Your task to perform on an android device: see sites visited before in the chrome app Image 0: 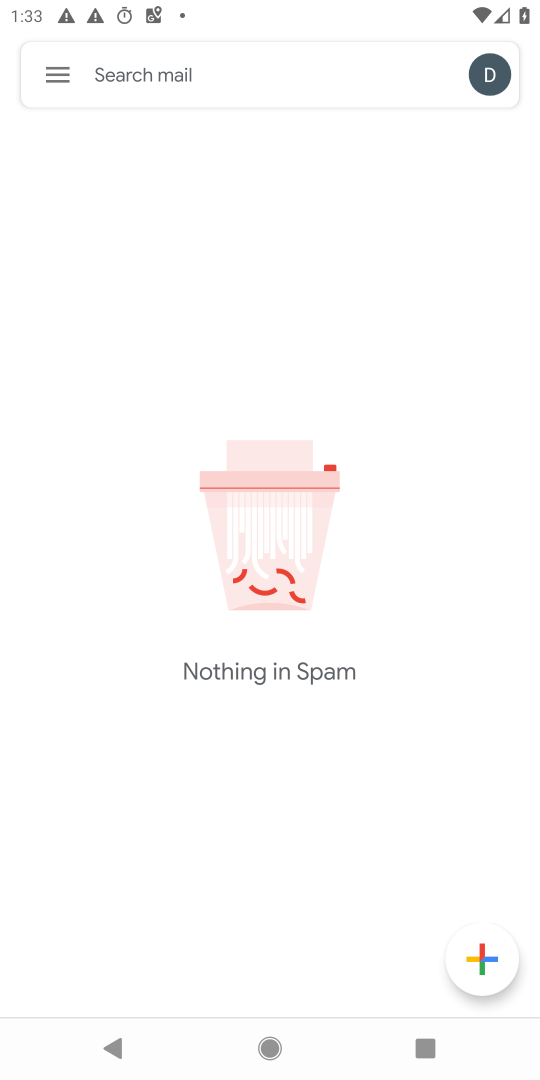
Step 0: press home button
Your task to perform on an android device: see sites visited before in the chrome app Image 1: 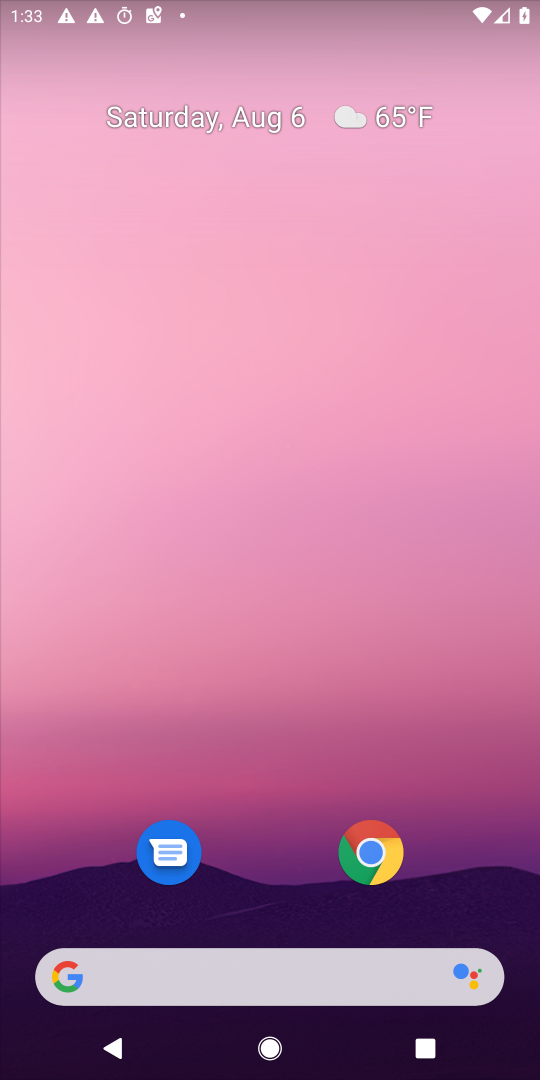
Step 1: drag from (351, 1000) to (462, 396)
Your task to perform on an android device: see sites visited before in the chrome app Image 2: 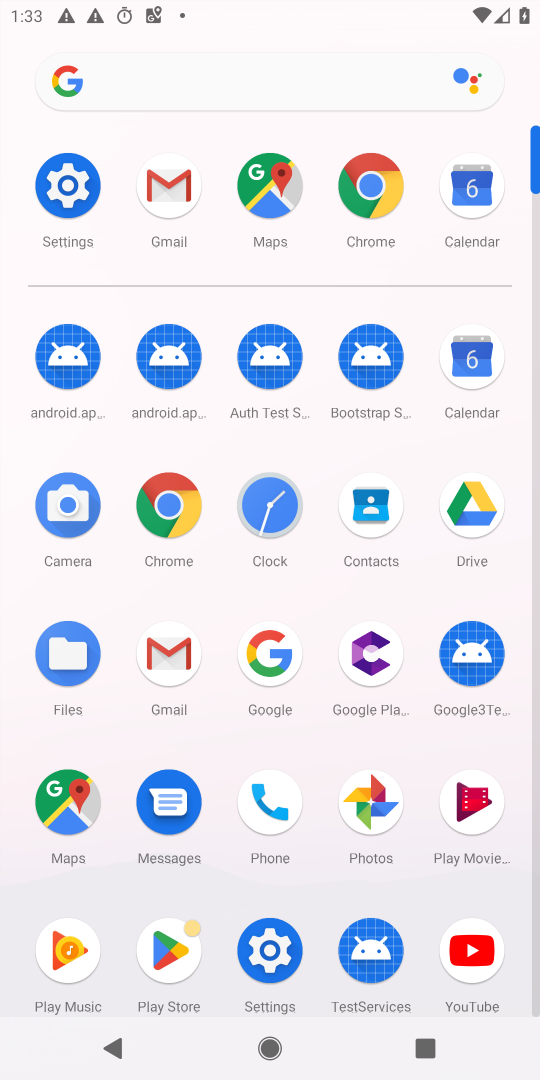
Step 2: click (376, 203)
Your task to perform on an android device: see sites visited before in the chrome app Image 3: 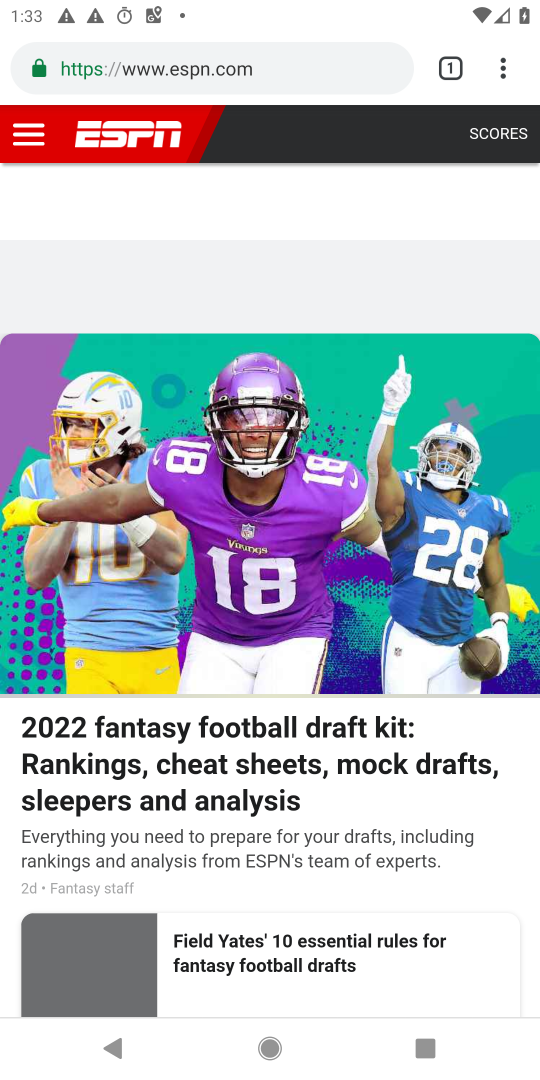
Step 3: click (502, 83)
Your task to perform on an android device: see sites visited before in the chrome app Image 4: 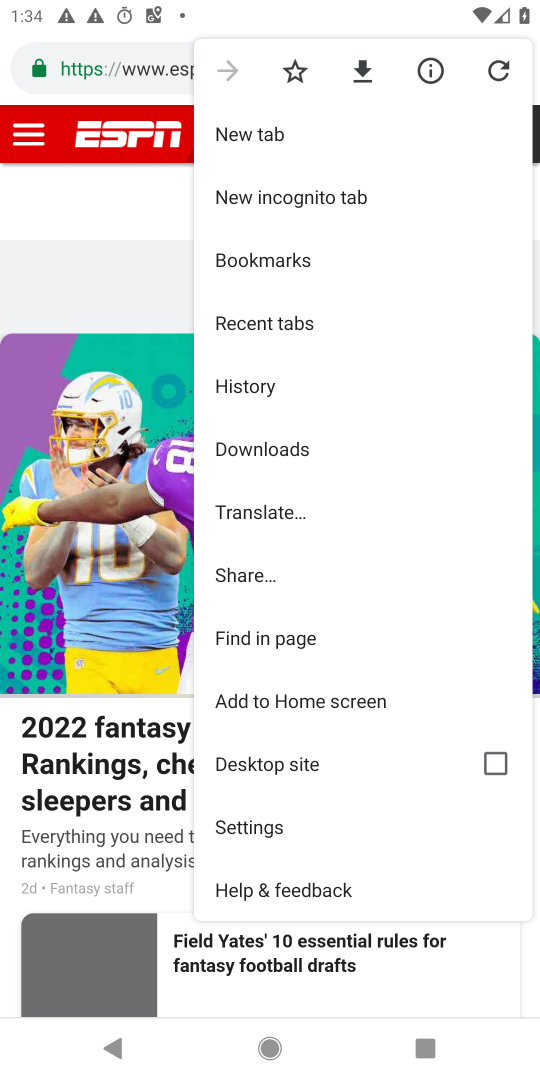
Step 4: click (256, 822)
Your task to perform on an android device: see sites visited before in the chrome app Image 5: 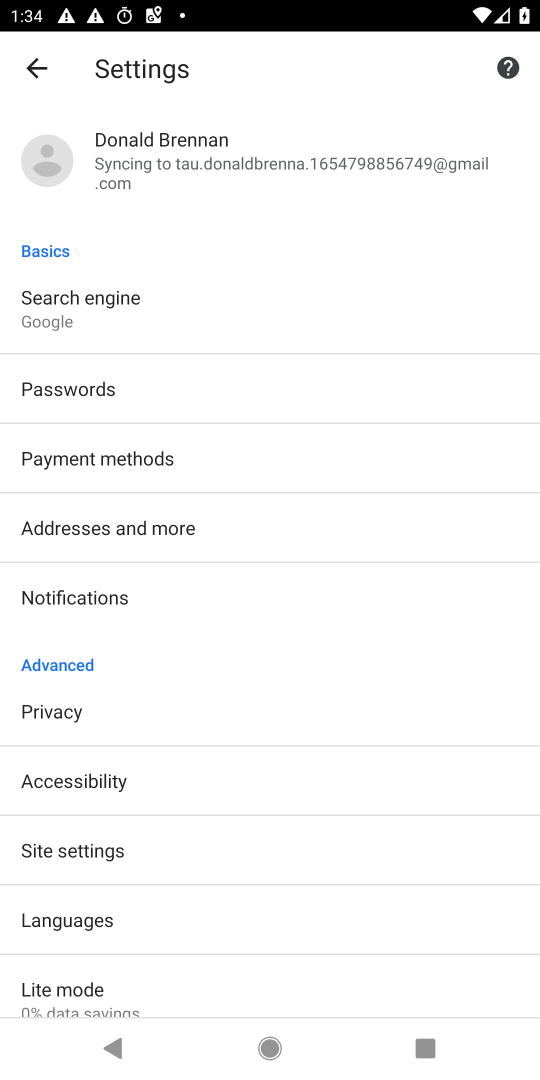
Step 5: click (109, 847)
Your task to perform on an android device: see sites visited before in the chrome app Image 6: 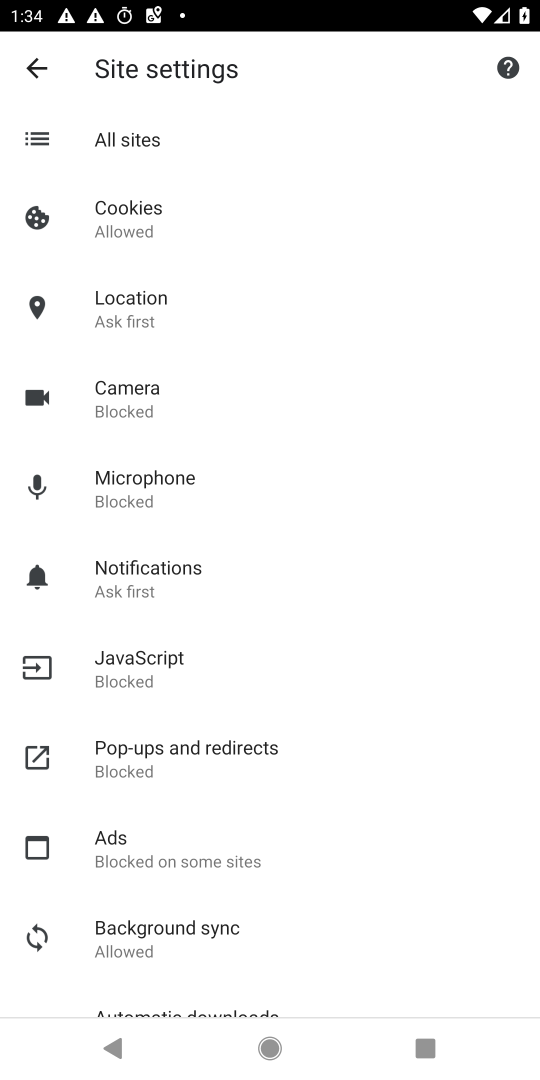
Step 6: click (201, 146)
Your task to perform on an android device: see sites visited before in the chrome app Image 7: 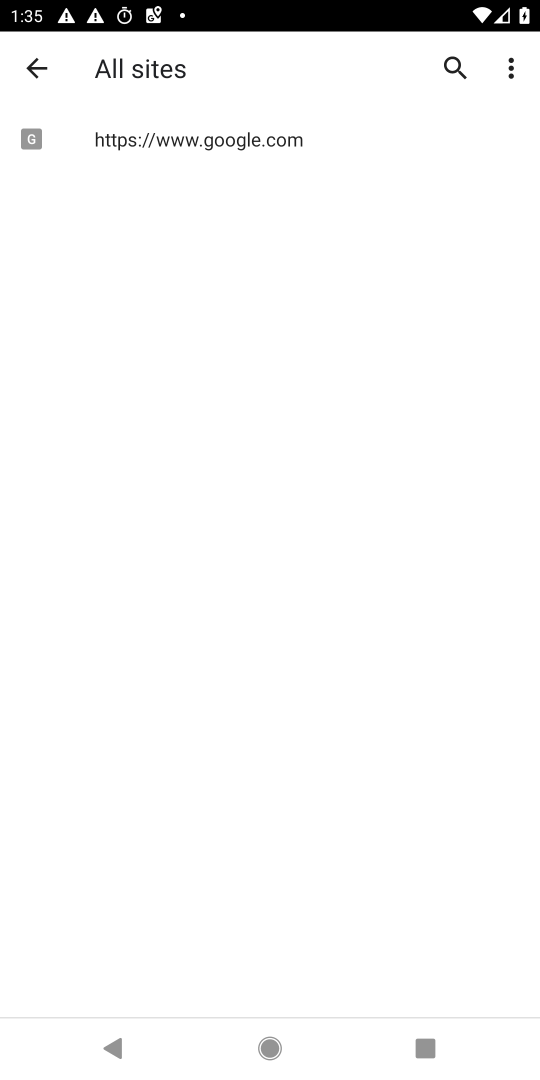
Step 7: task complete